Your task to perform on an android device: change timer sound Image 0: 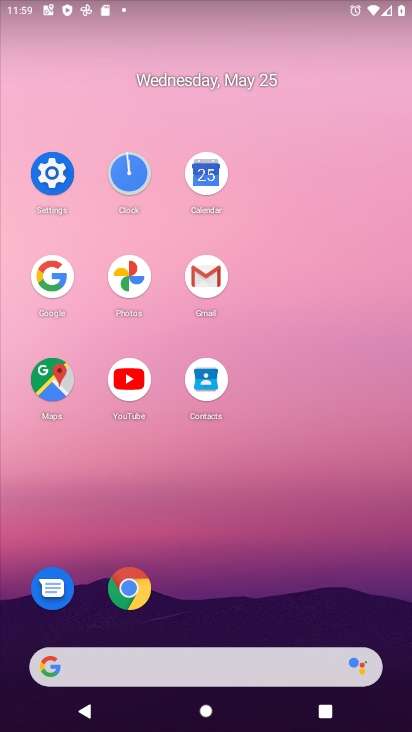
Step 0: click (132, 170)
Your task to perform on an android device: change timer sound Image 1: 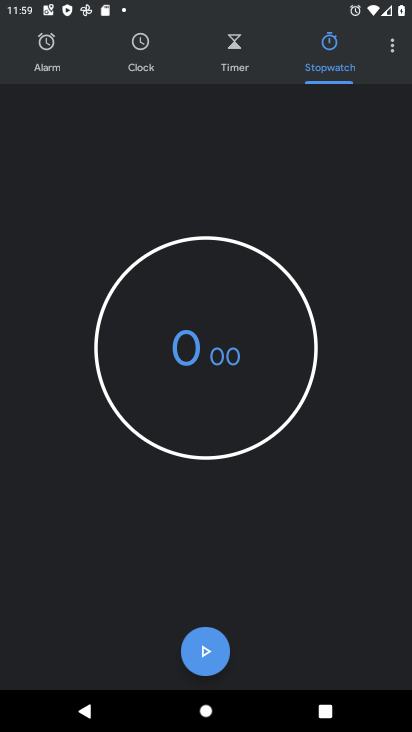
Step 1: click (398, 60)
Your task to perform on an android device: change timer sound Image 2: 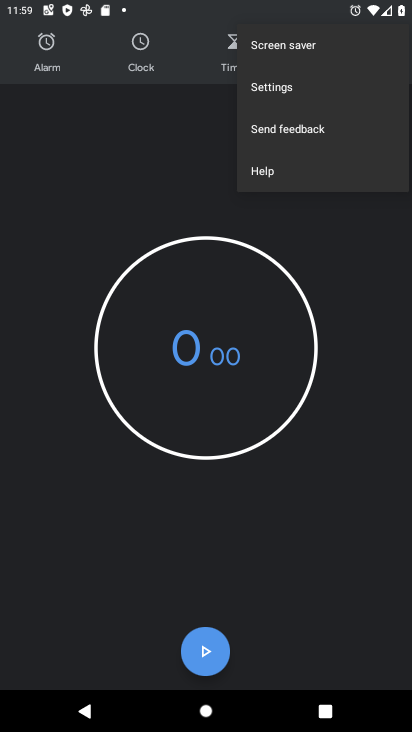
Step 2: click (332, 92)
Your task to perform on an android device: change timer sound Image 3: 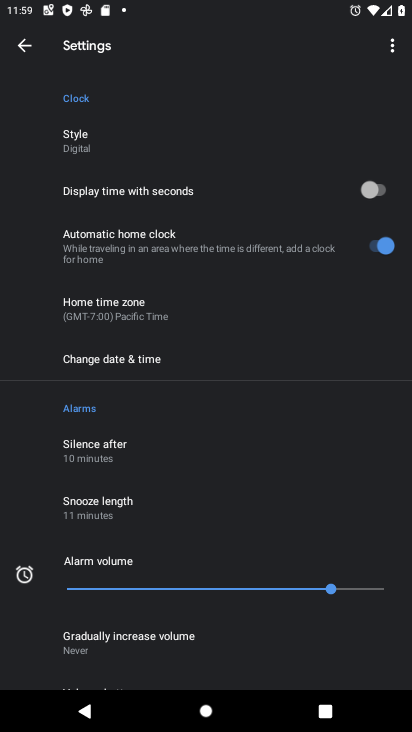
Step 3: drag from (141, 552) to (186, 301)
Your task to perform on an android device: change timer sound Image 4: 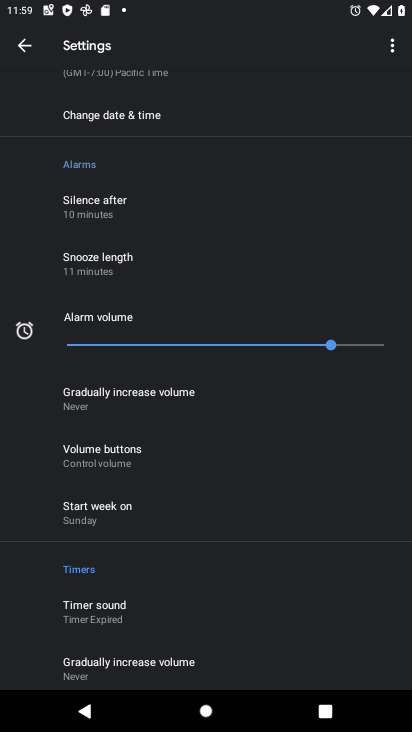
Step 4: click (101, 602)
Your task to perform on an android device: change timer sound Image 5: 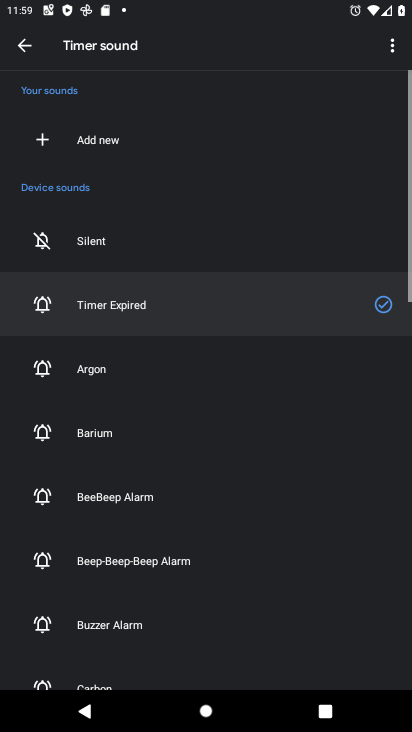
Step 5: click (98, 378)
Your task to perform on an android device: change timer sound Image 6: 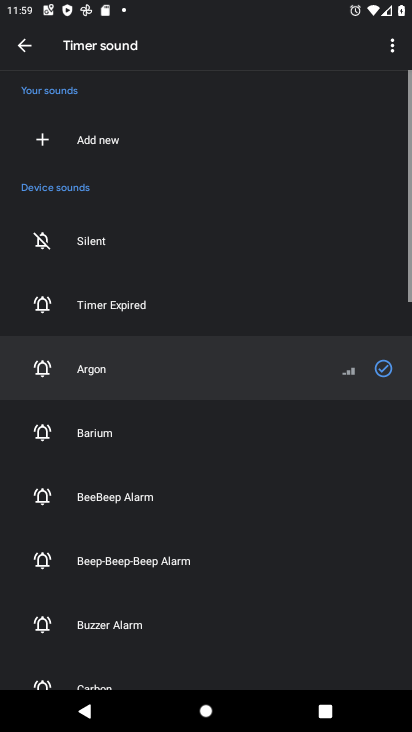
Step 6: task complete